Your task to perform on an android device: turn off improve location accuracy Image 0: 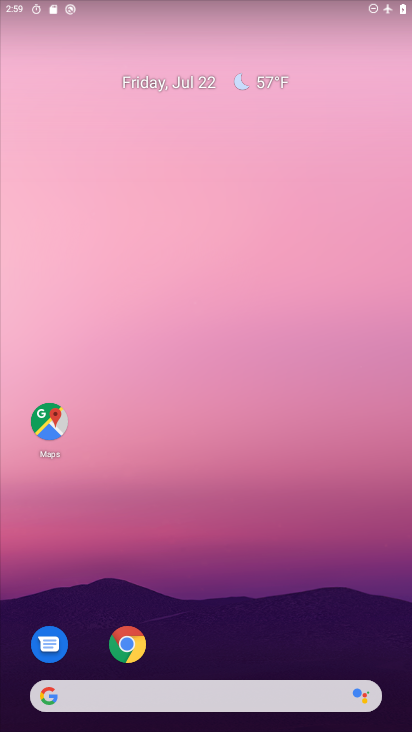
Step 0: drag from (204, 650) to (212, 159)
Your task to perform on an android device: turn off improve location accuracy Image 1: 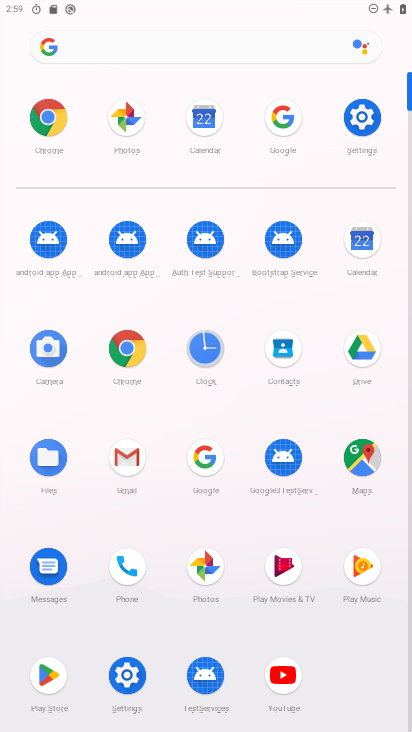
Step 1: click (362, 129)
Your task to perform on an android device: turn off improve location accuracy Image 2: 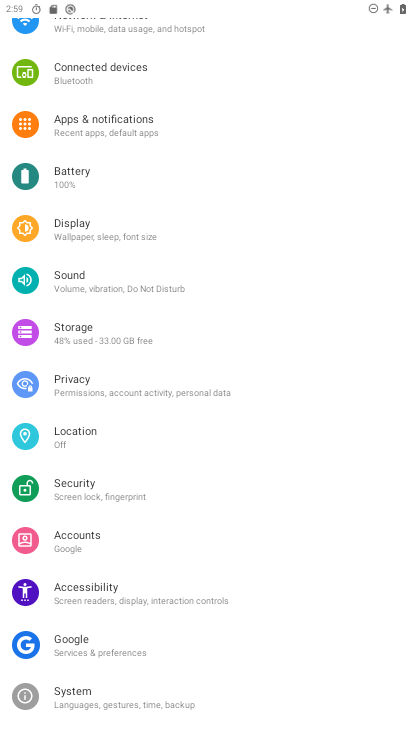
Step 2: click (96, 429)
Your task to perform on an android device: turn off improve location accuracy Image 3: 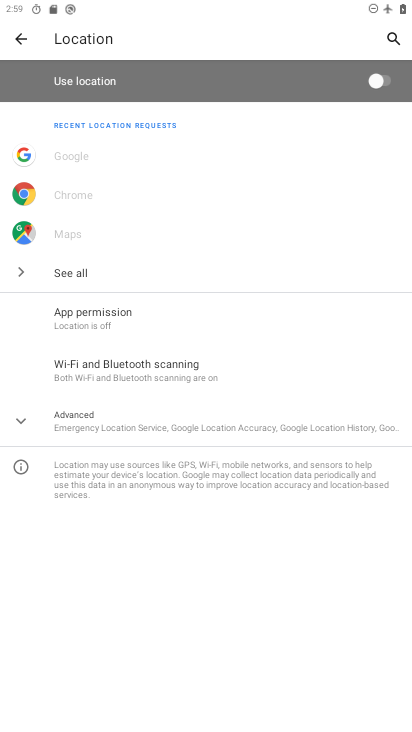
Step 3: click (179, 420)
Your task to perform on an android device: turn off improve location accuracy Image 4: 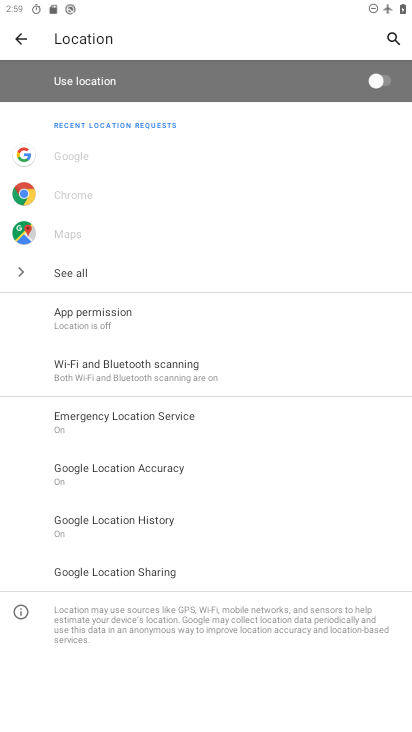
Step 4: click (195, 465)
Your task to perform on an android device: turn off improve location accuracy Image 5: 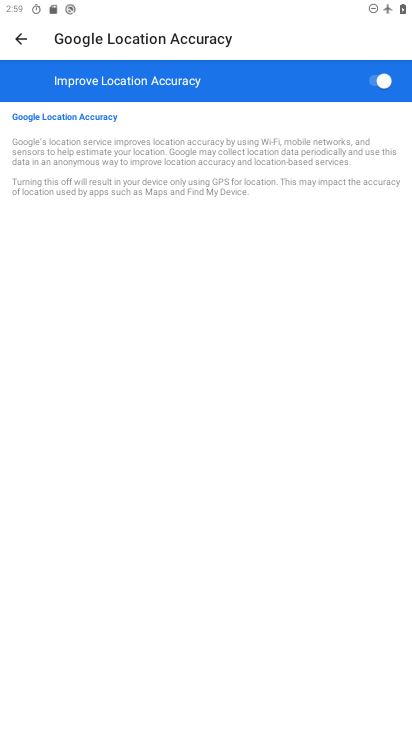
Step 5: click (371, 64)
Your task to perform on an android device: turn off improve location accuracy Image 6: 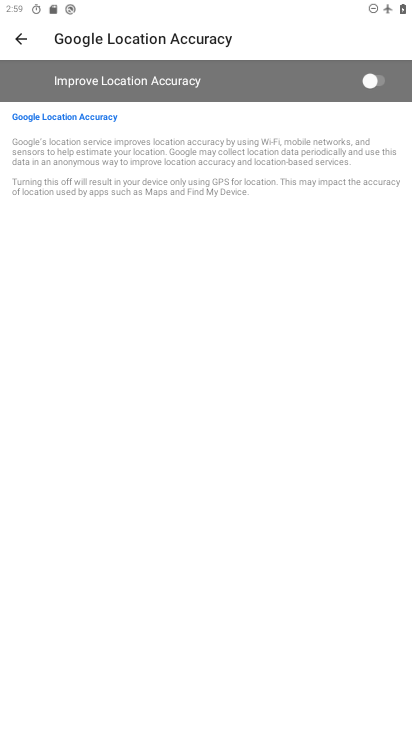
Step 6: task complete